Your task to perform on an android device: open device folders in google photos Image 0: 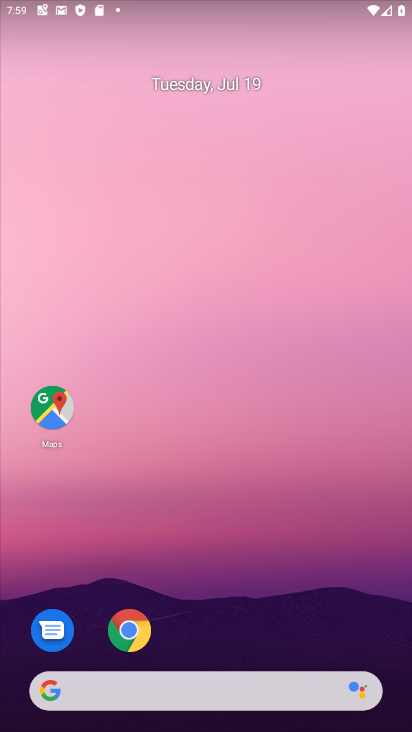
Step 0: drag from (184, 636) to (184, 10)
Your task to perform on an android device: open device folders in google photos Image 1: 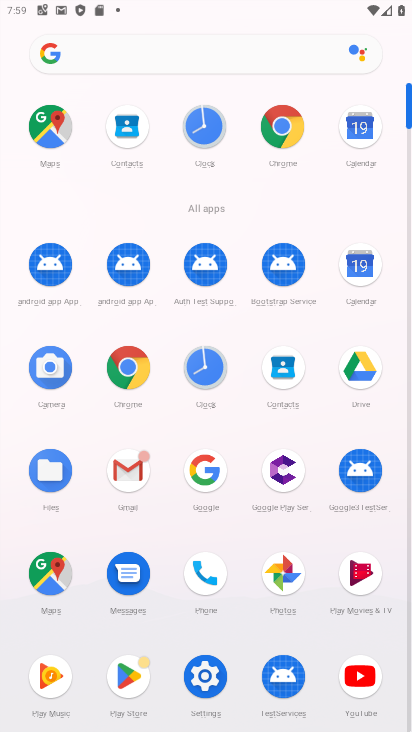
Step 1: click (283, 579)
Your task to perform on an android device: open device folders in google photos Image 2: 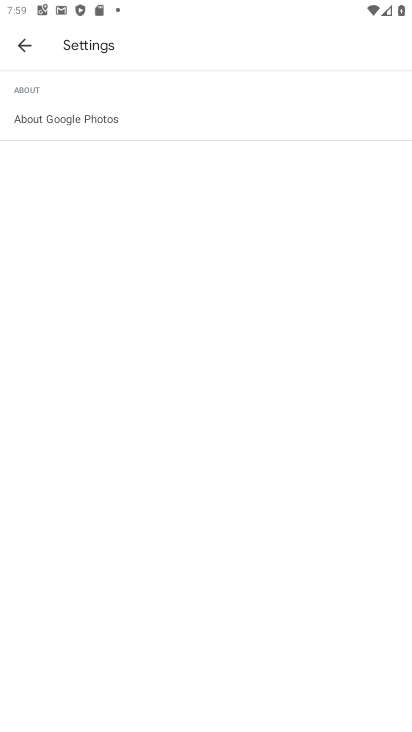
Step 2: click (22, 46)
Your task to perform on an android device: open device folders in google photos Image 3: 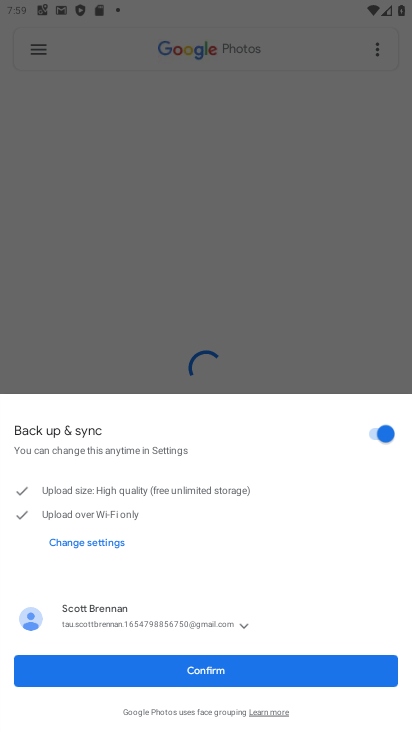
Step 3: click (207, 675)
Your task to perform on an android device: open device folders in google photos Image 4: 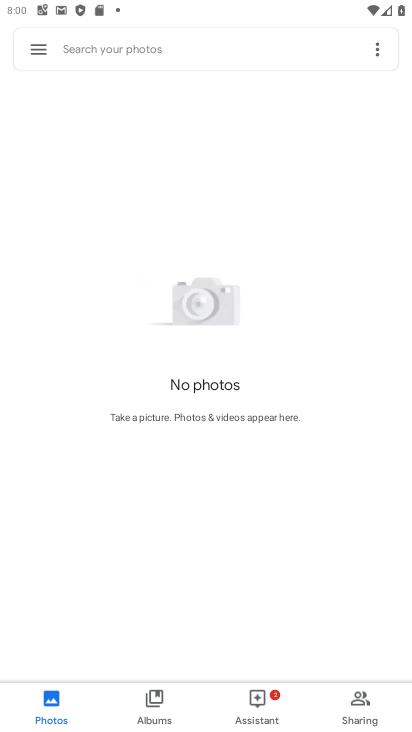
Step 4: click (36, 42)
Your task to perform on an android device: open device folders in google photos Image 5: 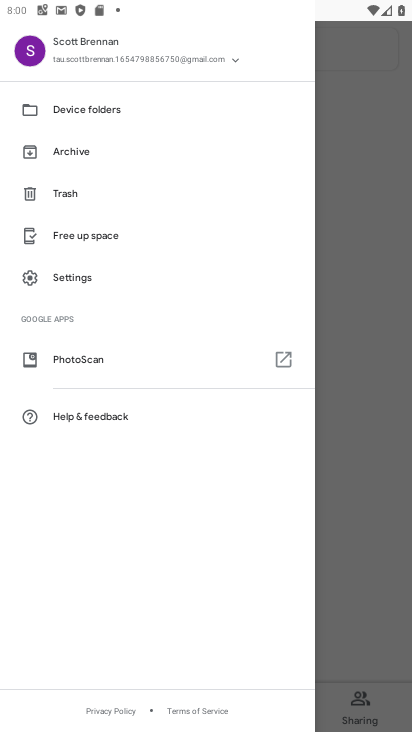
Step 5: click (66, 110)
Your task to perform on an android device: open device folders in google photos Image 6: 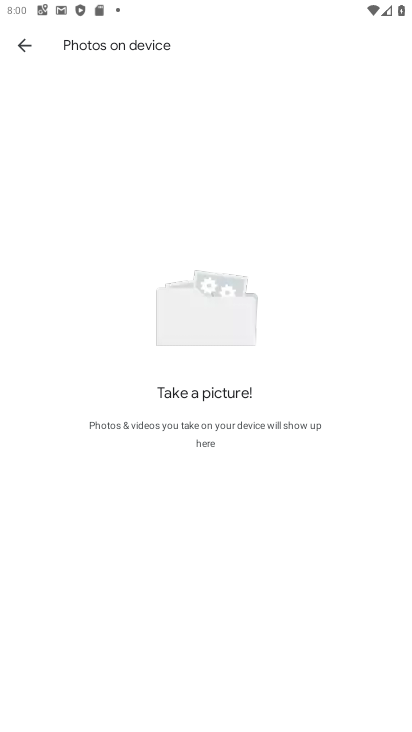
Step 6: task complete